Your task to perform on an android device: Open internet settings Image 0: 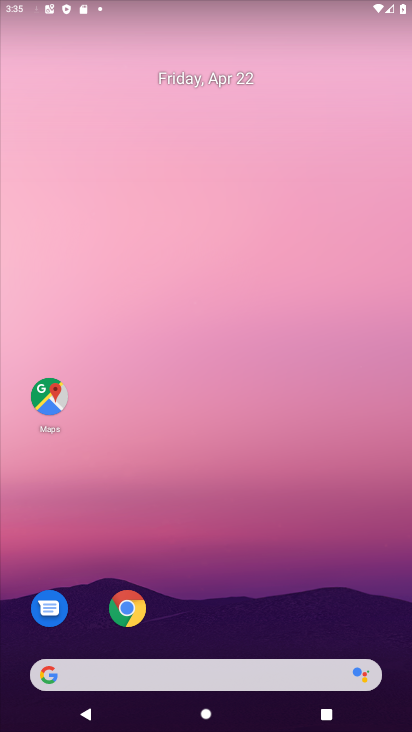
Step 0: drag from (282, 622) to (283, 254)
Your task to perform on an android device: Open internet settings Image 1: 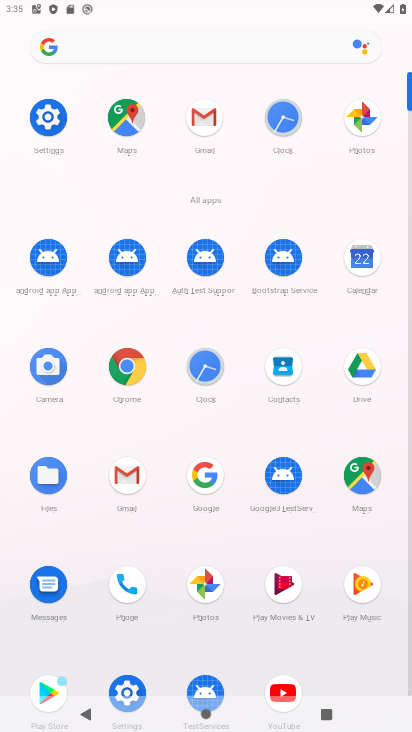
Step 1: click (54, 129)
Your task to perform on an android device: Open internet settings Image 2: 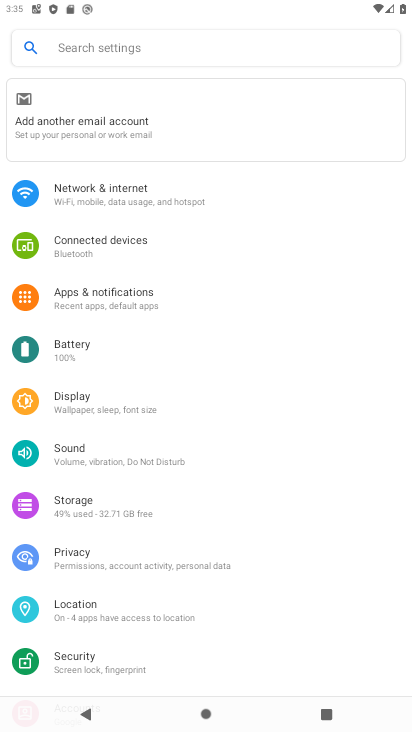
Step 2: click (107, 199)
Your task to perform on an android device: Open internet settings Image 3: 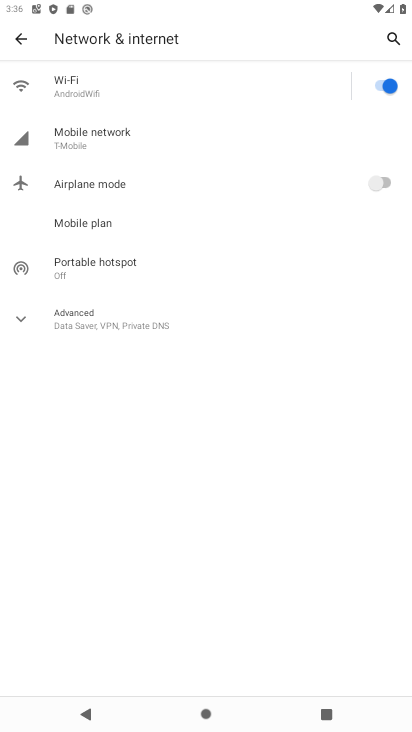
Step 3: task complete